Your task to perform on an android device: Open Android settings Image 0: 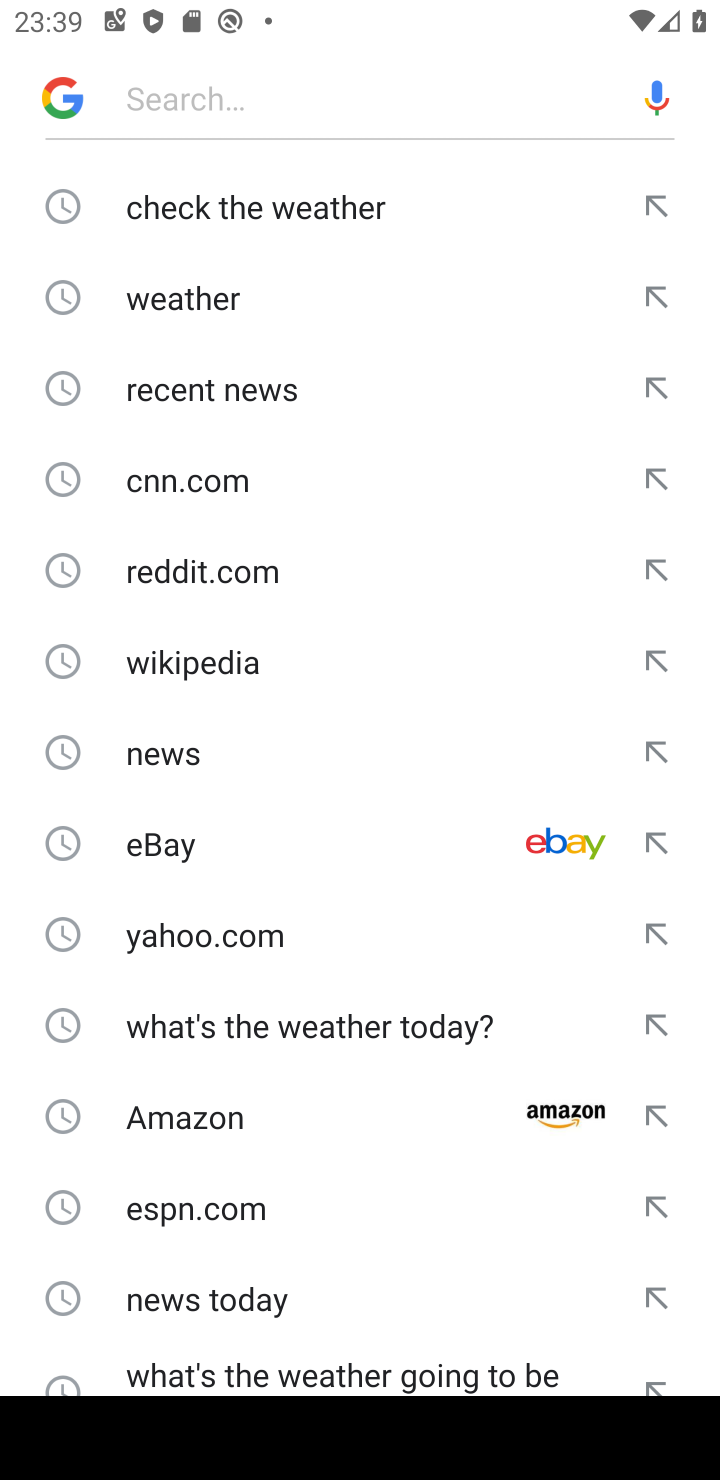
Step 0: press home button
Your task to perform on an android device: Open Android settings Image 1: 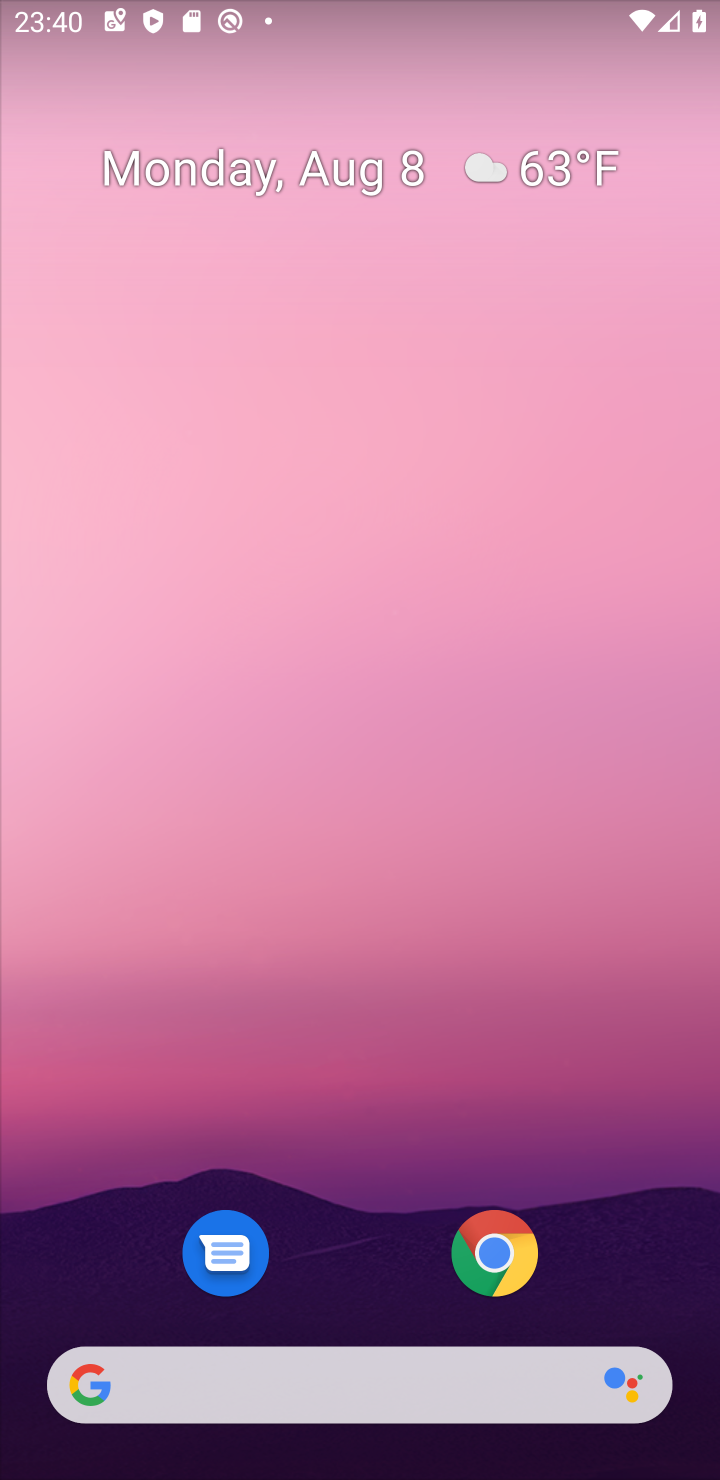
Step 1: drag from (314, 1241) to (350, 856)
Your task to perform on an android device: Open Android settings Image 2: 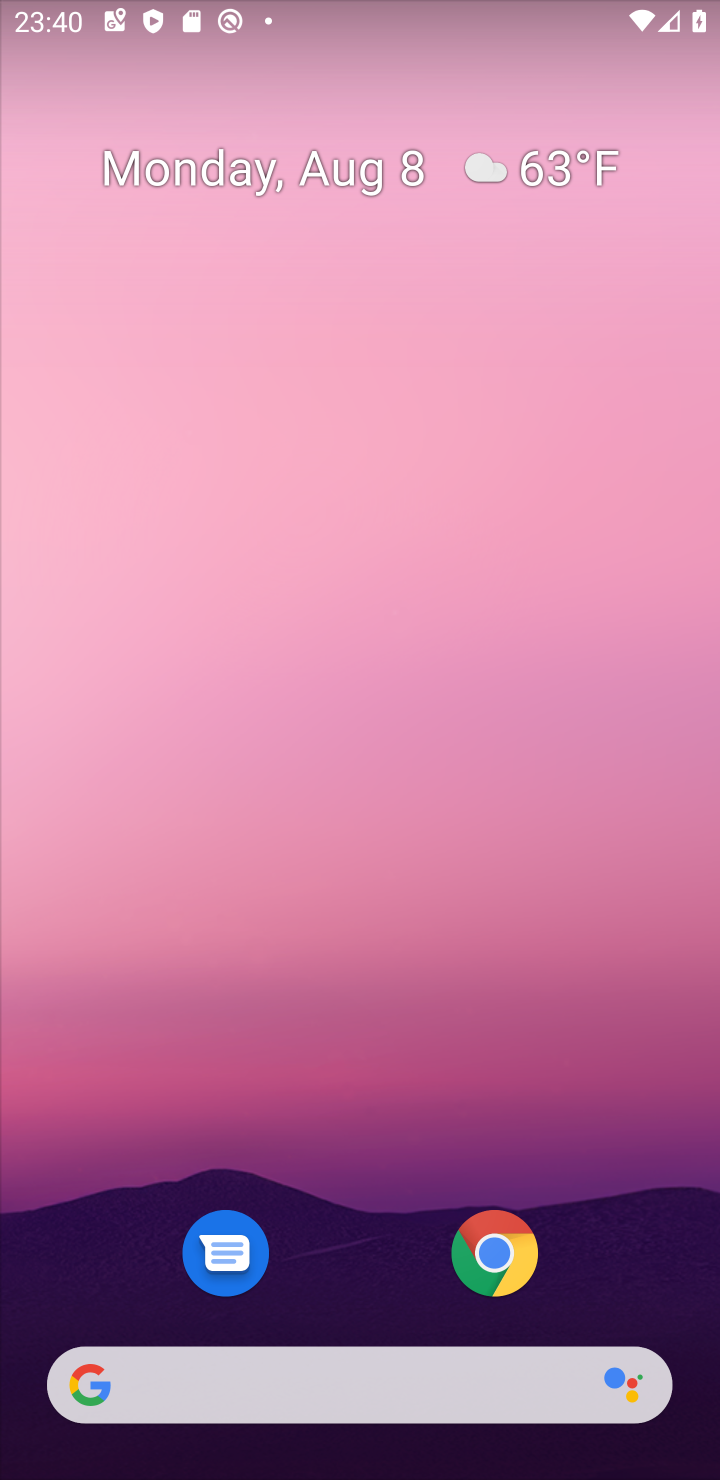
Step 2: drag from (376, 1264) to (393, 276)
Your task to perform on an android device: Open Android settings Image 3: 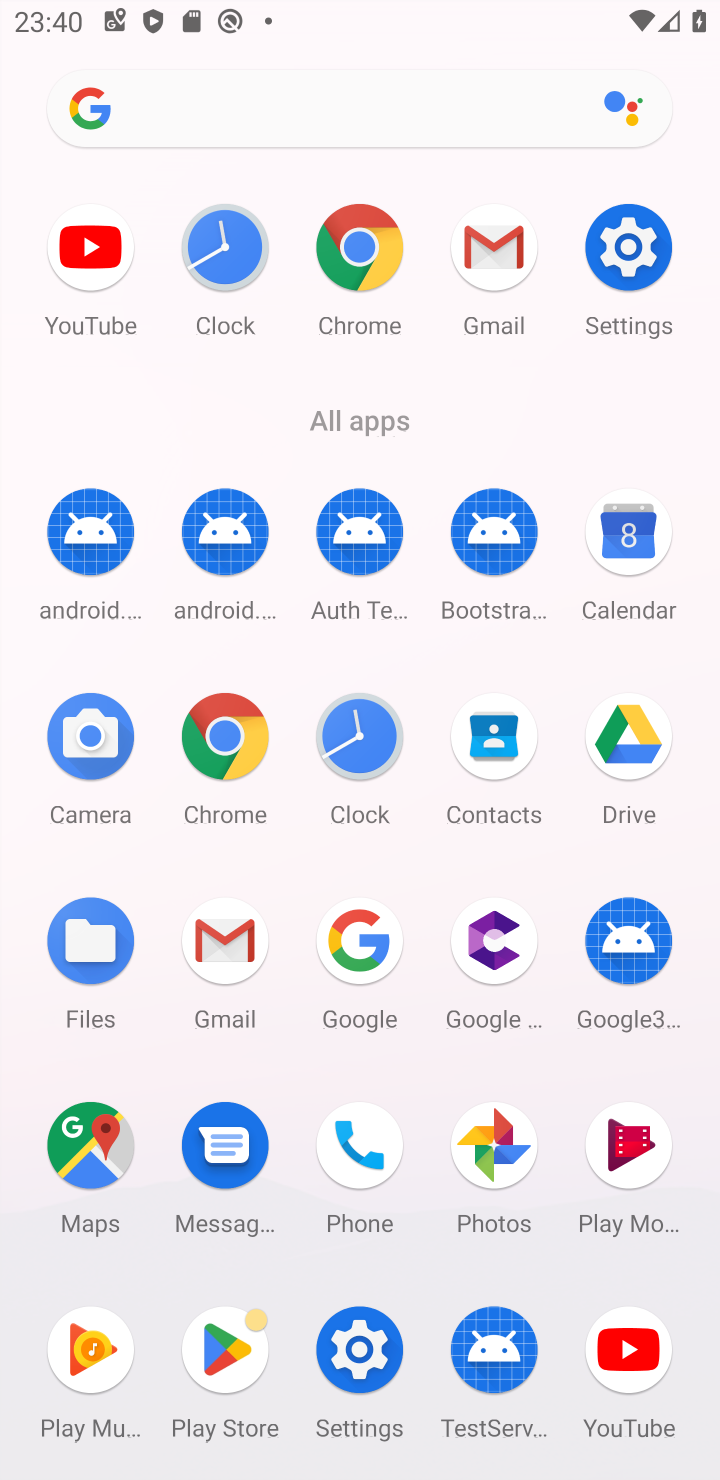
Step 3: click (654, 249)
Your task to perform on an android device: Open Android settings Image 4: 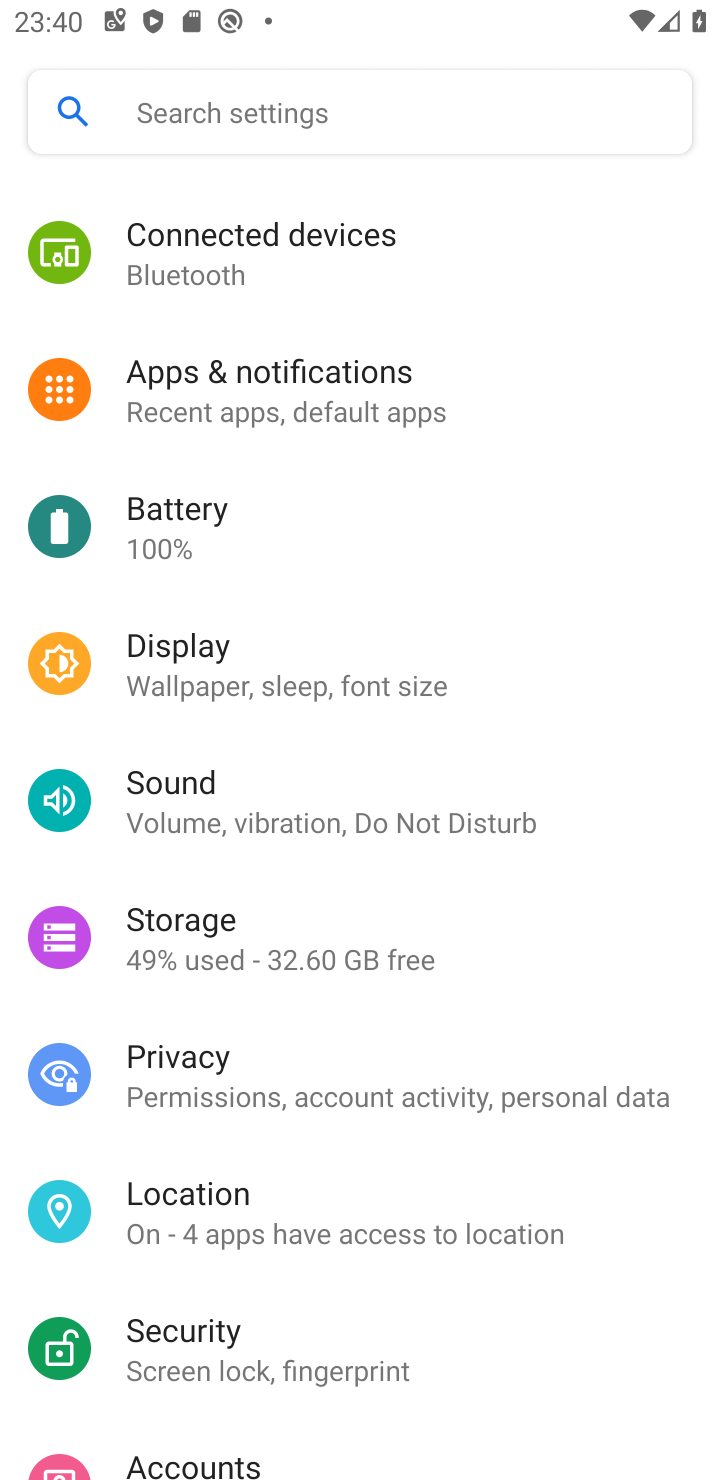
Step 4: task complete